Your task to perform on an android device: empty trash in google photos Image 0: 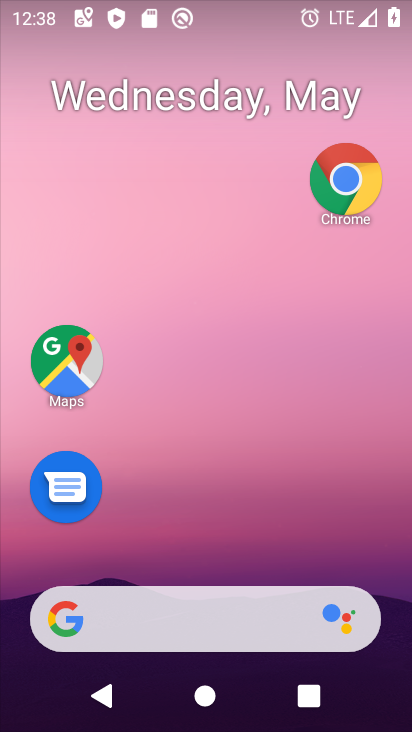
Step 0: drag from (149, 543) to (179, 18)
Your task to perform on an android device: empty trash in google photos Image 1: 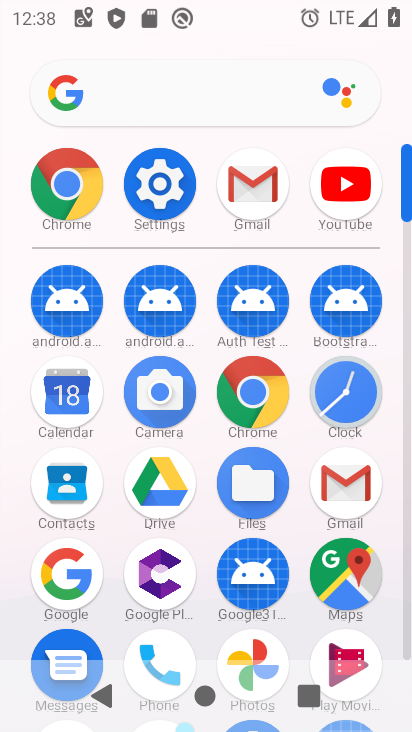
Step 1: click (245, 641)
Your task to perform on an android device: empty trash in google photos Image 2: 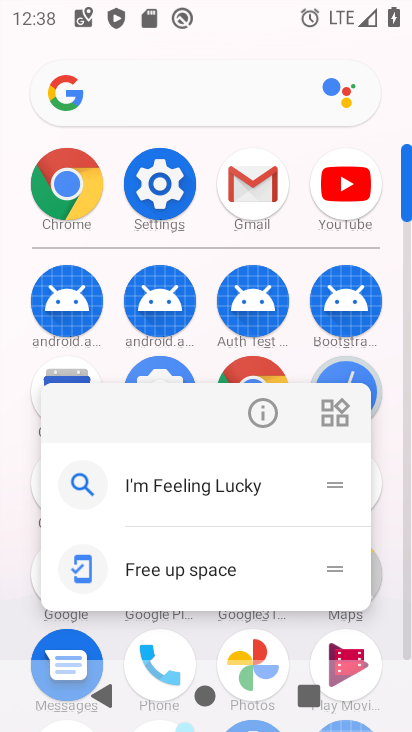
Step 2: click (260, 405)
Your task to perform on an android device: empty trash in google photos Image 3: 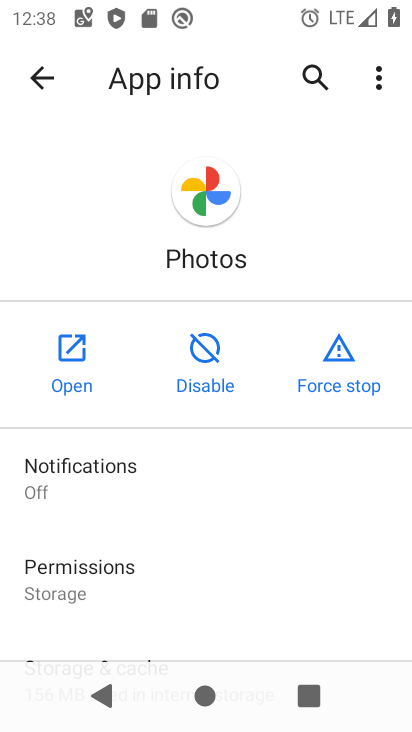
Step 3: click (69, 357)
Your task to perform on an android device: empty trash in google photos Image 4: 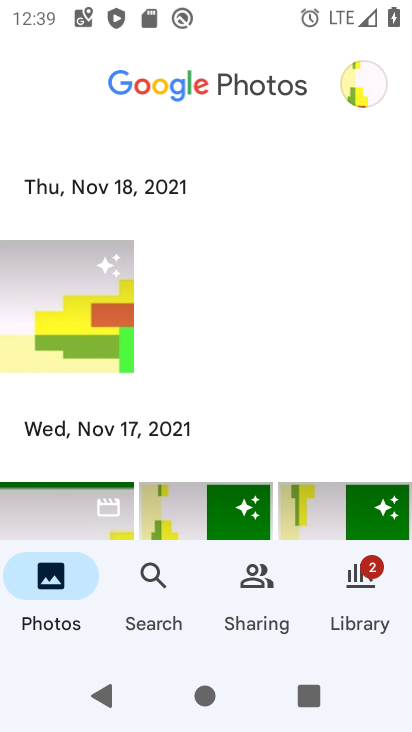
Step 4: click (359, 585)
Your task to perform on an android device: empty trash in google photos Image 5: 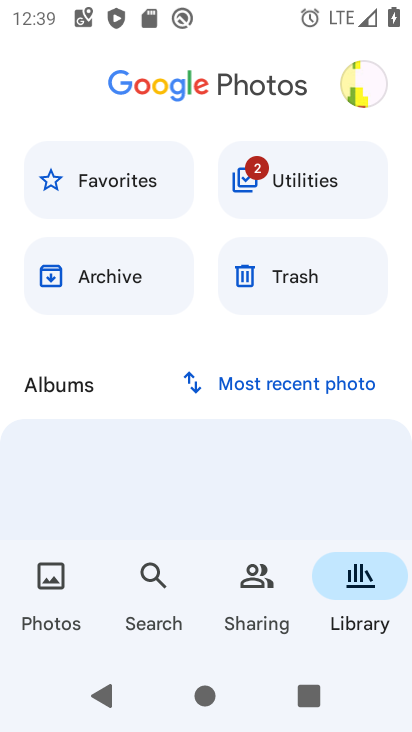
Step 5: click (267, 279)
Your task to perform on an android device: empty trash in google photos Image 6: 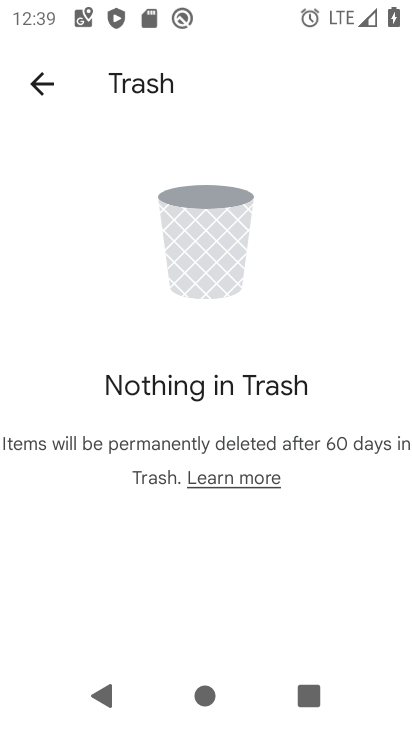
Step 6: task complete